Your task to perform on an android device: turn on data saver in the chrome app Image 0: 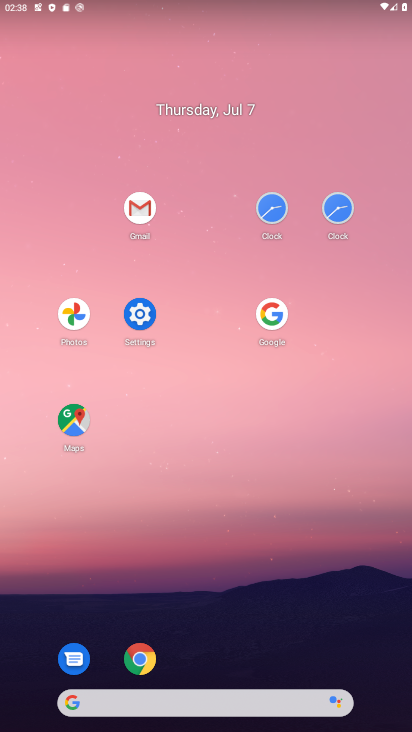
Step 0: click (136, 653)
Your task to perform on an android device: turn on data saver in the chrome app Image 1: 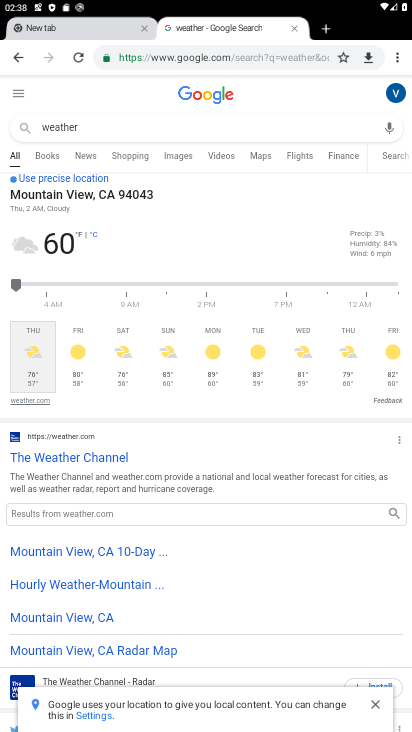
Step 1: click (200, 127)
Your task to perform on an android device: turn on data saver in the chrome app Image 2: 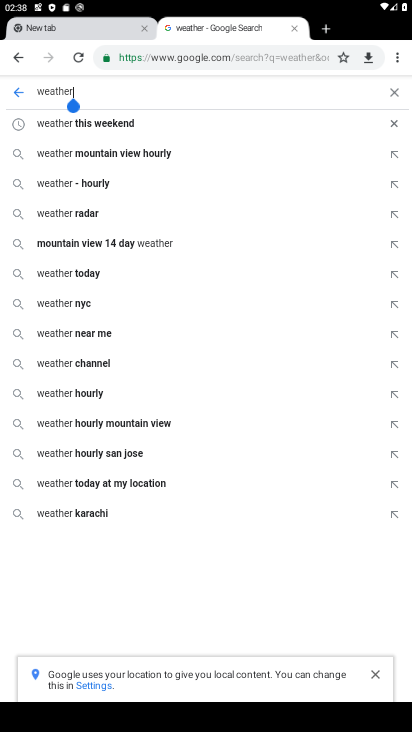
Step 2: click (401, 95)
Your task to perform on an android device: turn on data saver in the chrome app Image 3: 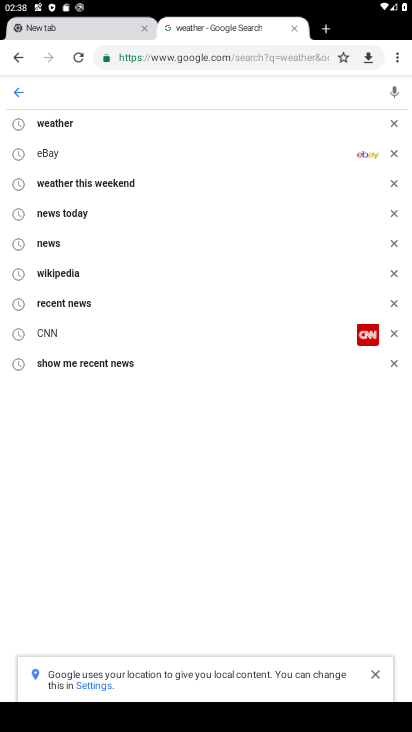
Step 3: click (86, 329)
Your task to perform on an android device: turn on data saver in the chrome app Image 4: 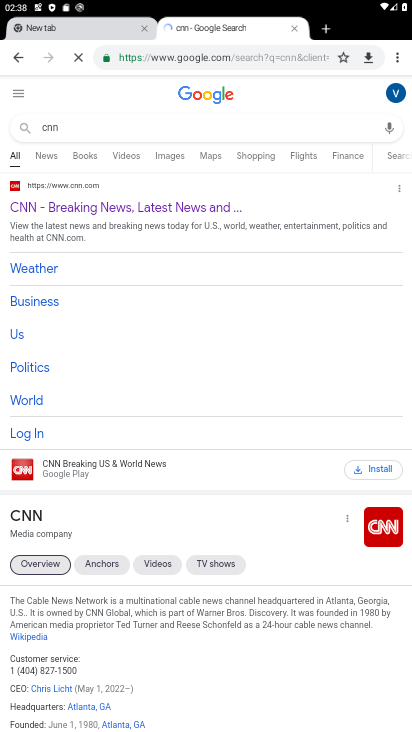
Step 4: click (55, 205)
Your task to perform on an android device: turn on data saver in the chrome app Image 5: 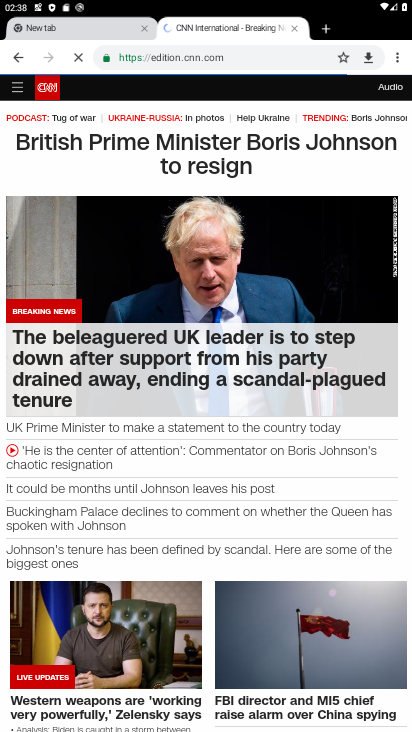
Step 5: task complete